Your task to perform on an android device: stop showing notifications on the lock screen Image 0: 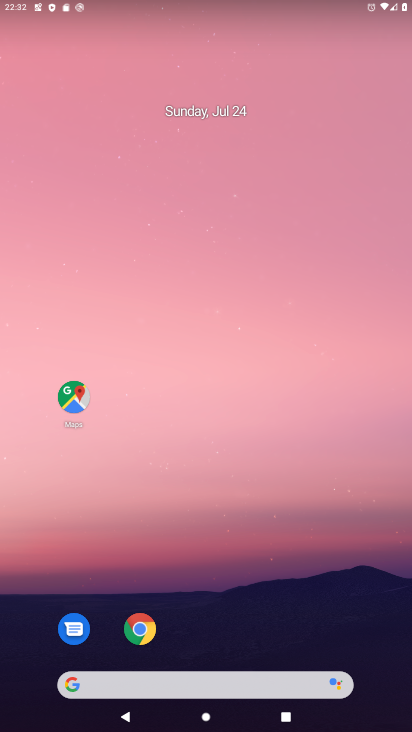
Step 0: click (261, 56)
Your task to perform on an android device: stop showing notifications on the lock screen Image 1: 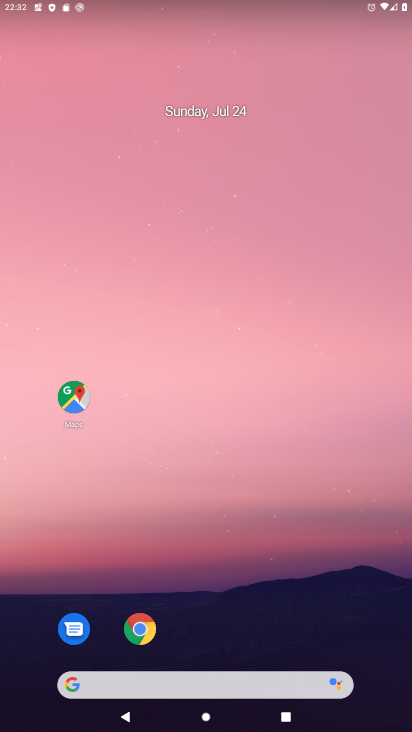
Step 1: drag from (204, 617) to (322, 18)
Your task to perform on an android device: stop showing notifications on the lock screen Image 2: 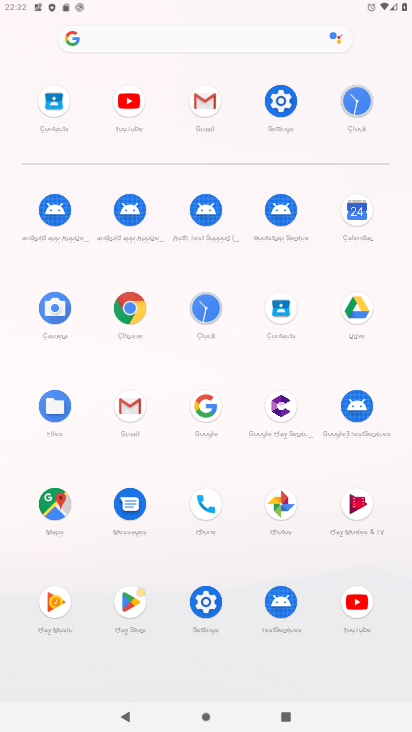
Step 2: click (273, 99)
Your task to perform on an android device: stop showing notifications on the lock screen Image 3: 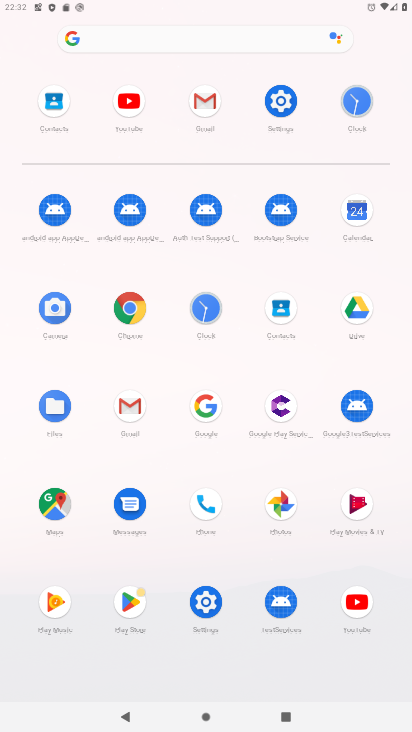
Step 3: click (273, 99)
Your task to perform on an android device: stop showing notifications on the lock screen Image 4: 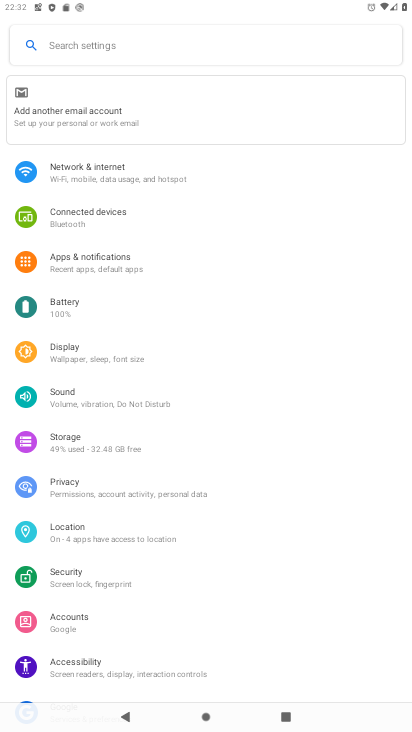
Step 4: click (105, 253)
Your task to perform on an android device: stop showing notifications on the lock screen Image 5: 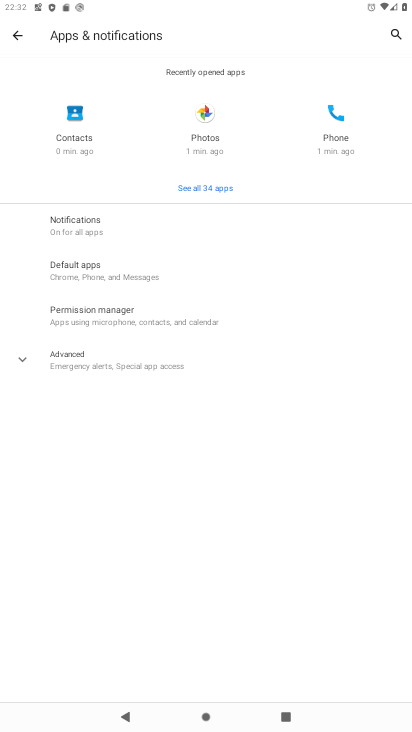
Step 5: click (128, 215)
Your task to perform on an android device: stop showing notifications on the lock screen Image 6: 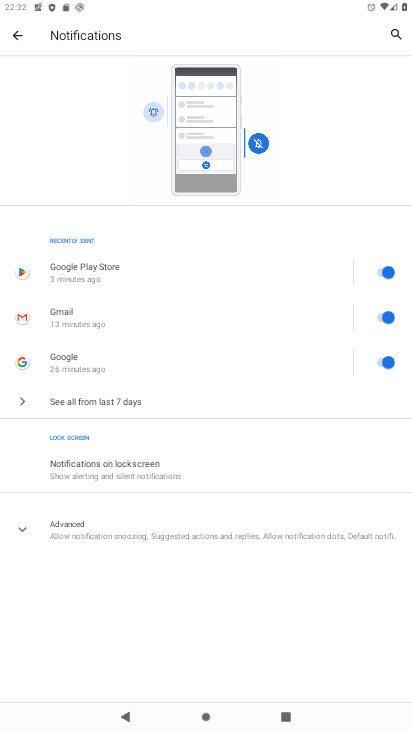
Step 6: click (121, 464)
Your task to perform on an android device: stop showing notifications on the lock screen Image 7: 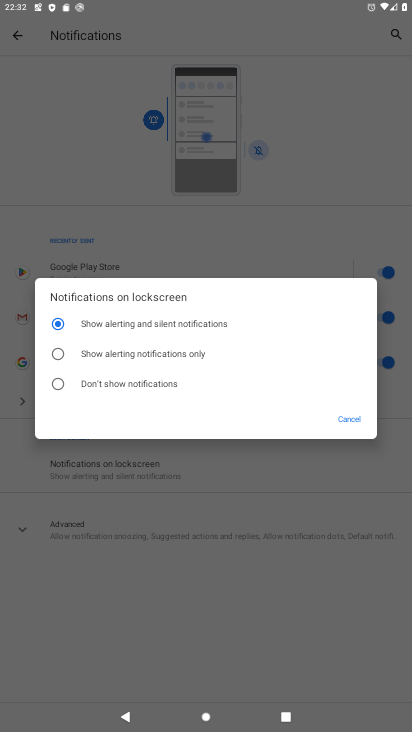
Step 7: click (129, 349)
Your task to perform on an android device: stop showing notifications on the lock screen Image 8: 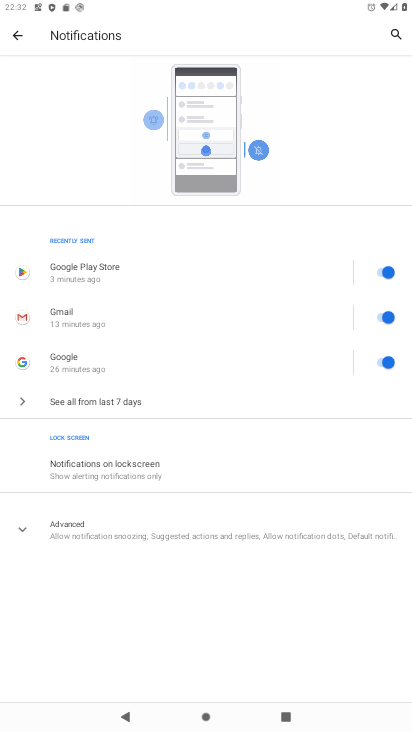
Step 8: click (99, 468)
Your task to perform on an android device: stop showing notifications on the lock screen Image 9: 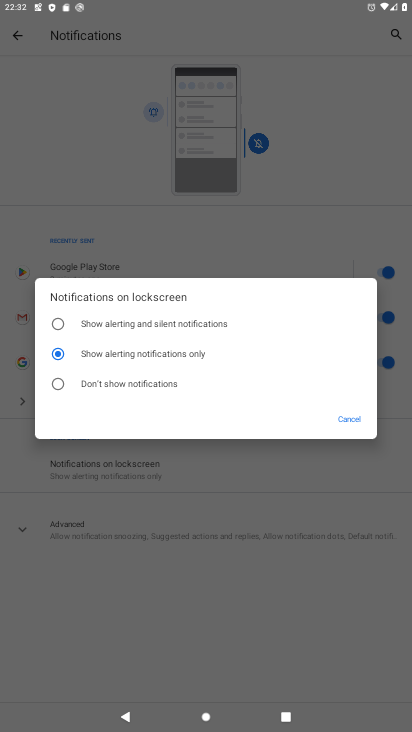
Step 9: click (59, 388)
Your task to perform on an android device: stop showing notifications on the lock screen Image 10: 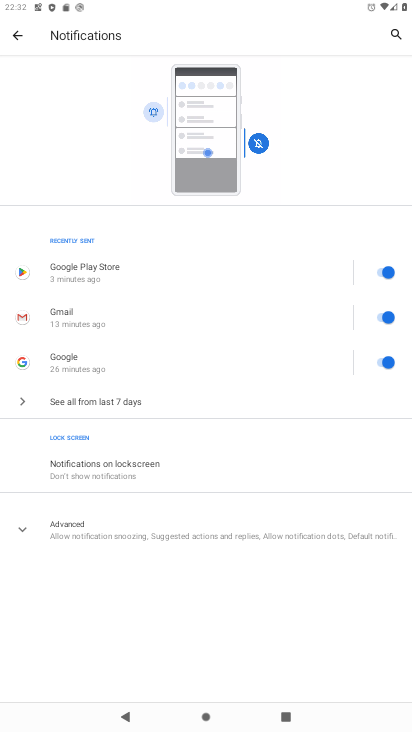
Step 10: click (97, 470)
Your task to perform on an android device: stop showing notifications on the lock screen Image 11: 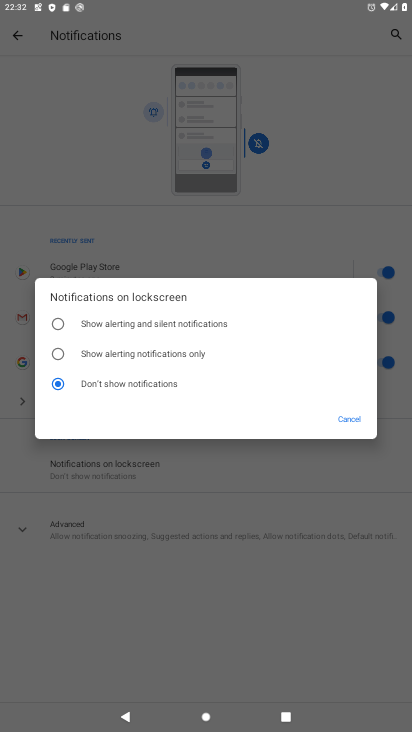
Step 11: click (70, 373)
Your task to perform on an android device: stop showing notifications on the lock screen Image 12: 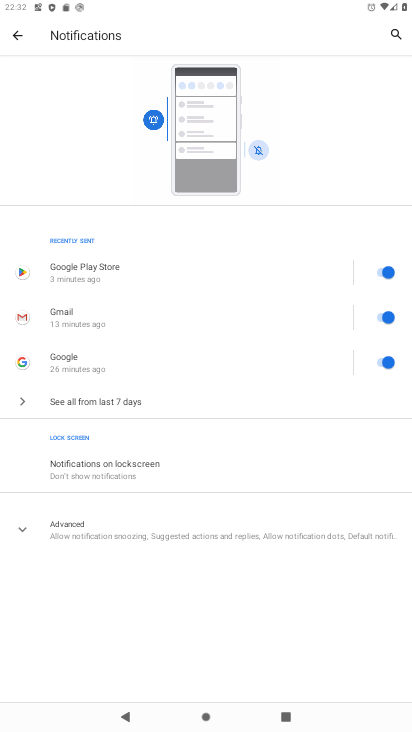
Step 12: task complete